Your task to perform on an android device: turn off data saver in the chrome app Image 0: 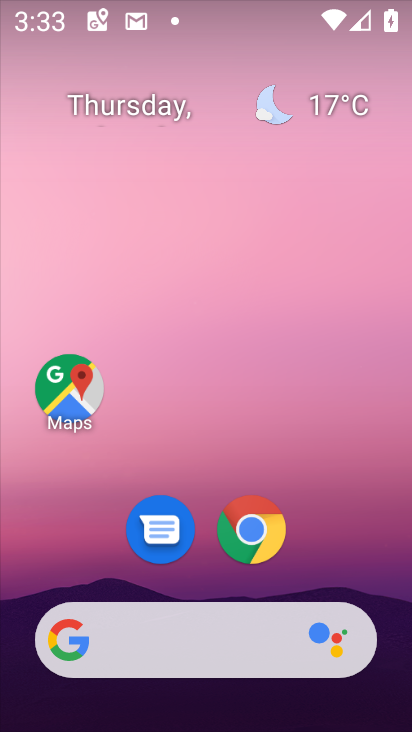
Step 0: click (267, 523)
Your task to perform on an android device: turn off data saver in the chrome app Image 1: 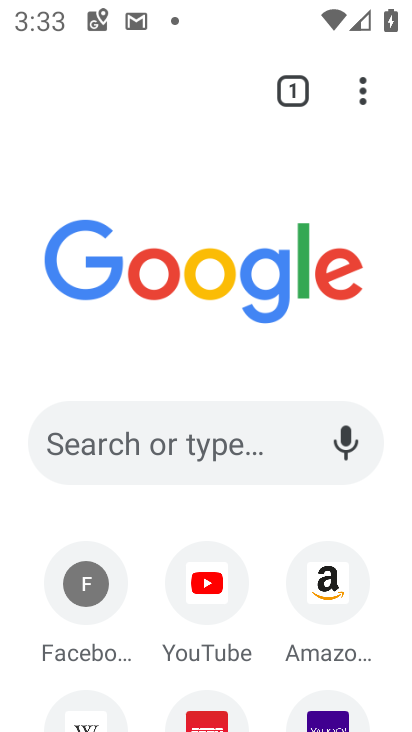
Step 1: click (365, 91)
Your task to perform on an android device: turn off data saver in the chrome app Image 2: 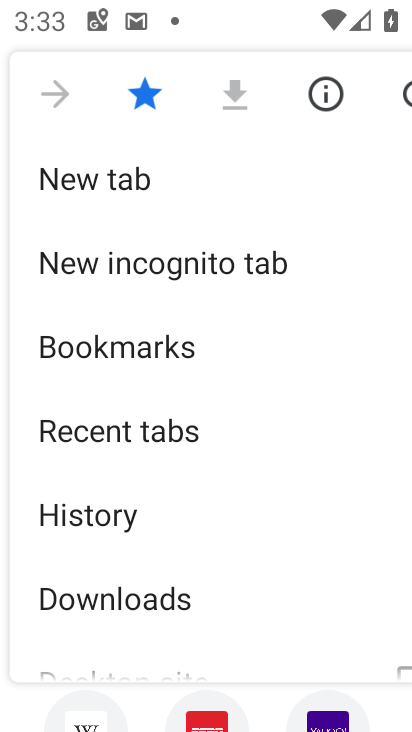
Step 2: drag from (78, 624) to (72, 204)
Your task to perform on an android device: turn off data saver in the chrome app Image 3: 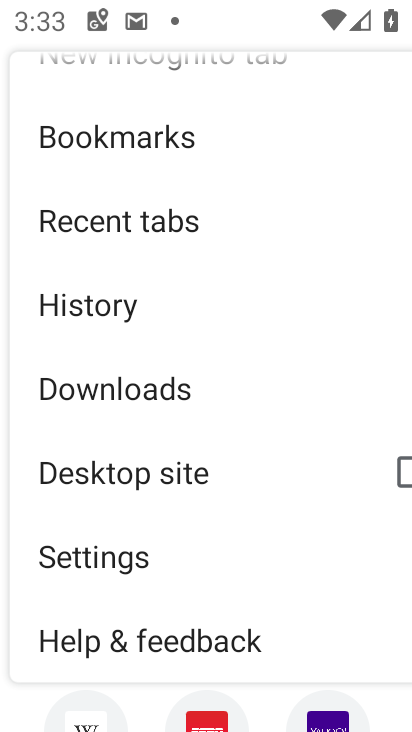
Step 3: click (107, 554)
Your task to perform on an android device: turn off data saver in the chrome app Image 4: 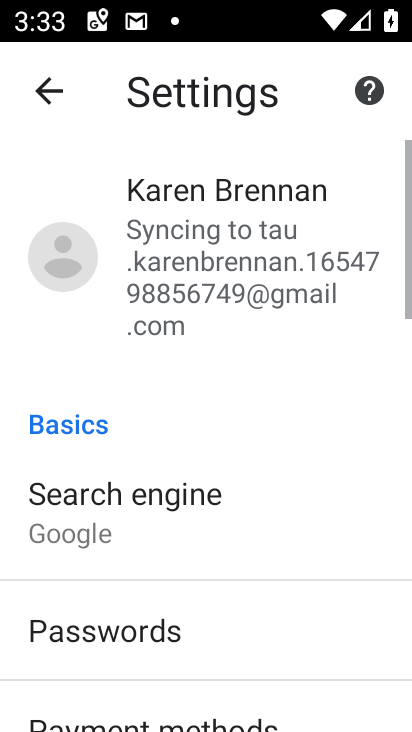
Step 4: drag from (108, 642) to (74, 165)
Your task to perform on an android device: turn off data saver in the chrome app Image 5: 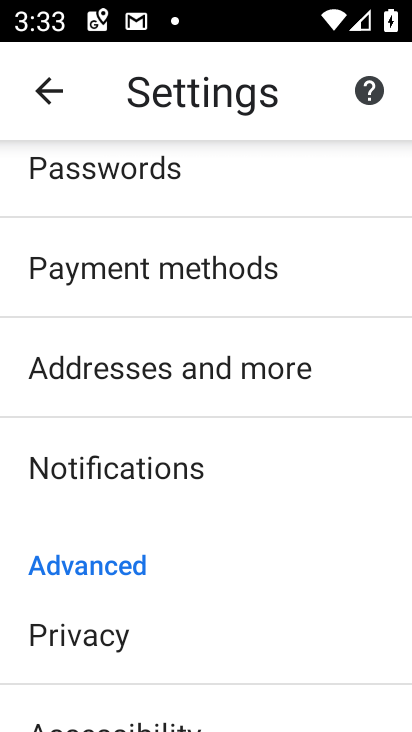
Step 5: drag from (98, 670) to (93, 208)
Your task to perform on an android device: turn off data saver in the chrome app Image 6: 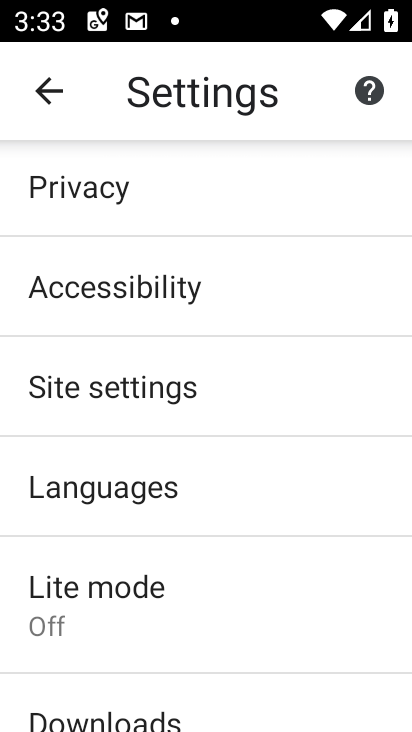
Step 6: click (90, 589)
Your task to perform on an android device: turn off data saver in the chrome app Image 7: 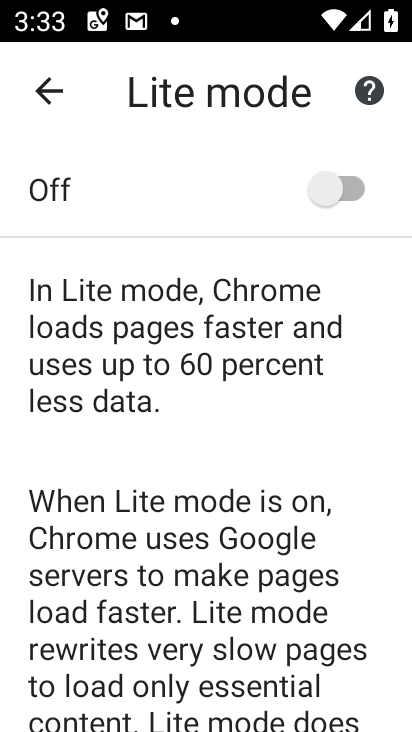
Step 7: task complete